Your task to perform on an android device: Open Maps and search for coffee Image 0: 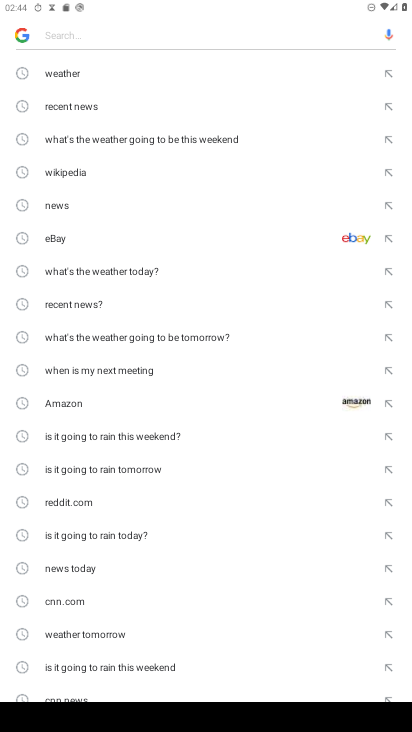
Step 0: press home button
Your task to perform on an android device: Open Maps and search for coffee Image 1: 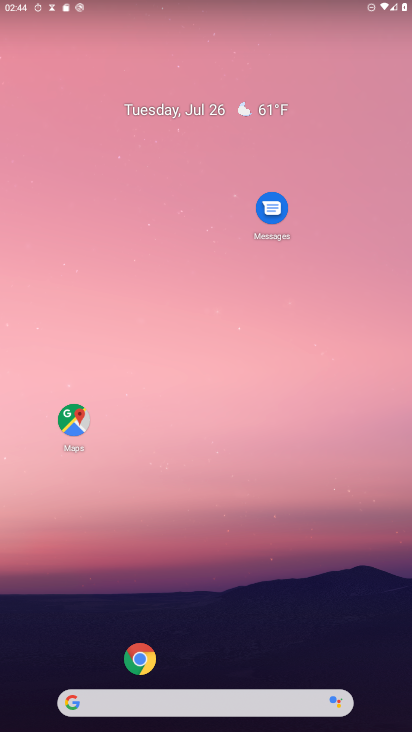
Step 1: click (75, 418)
Your task to perform on an android device: Open Maps and search for coffee Image 2: 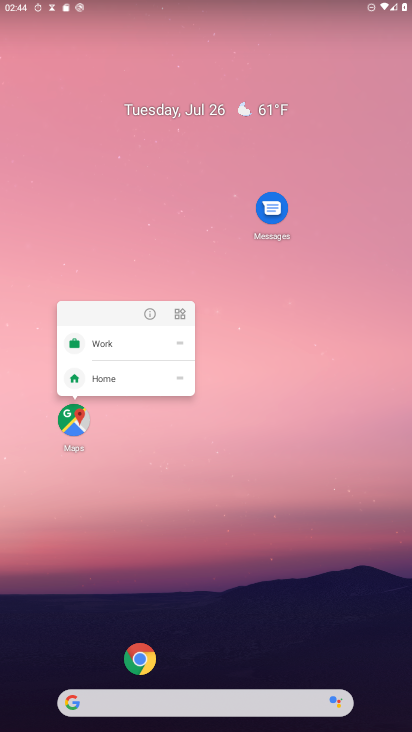
Step 2: click (74, 421)
Your task to perform on an android device: Open Maps and search for coffee Image 3: 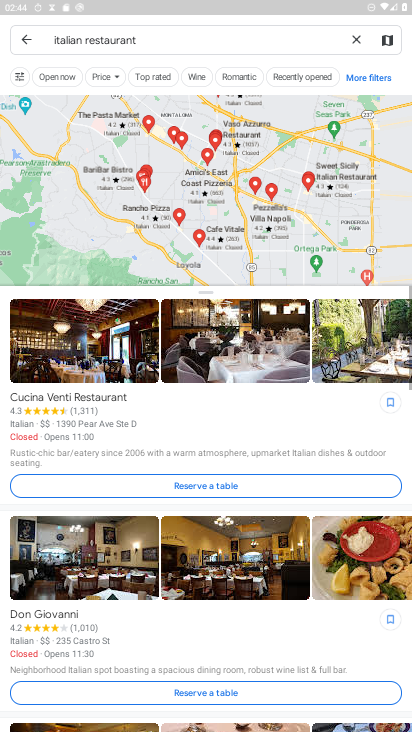
Step 3: click (23, 40)
Your task to perform on an android device: Open Maps and search for coffee Image 4: 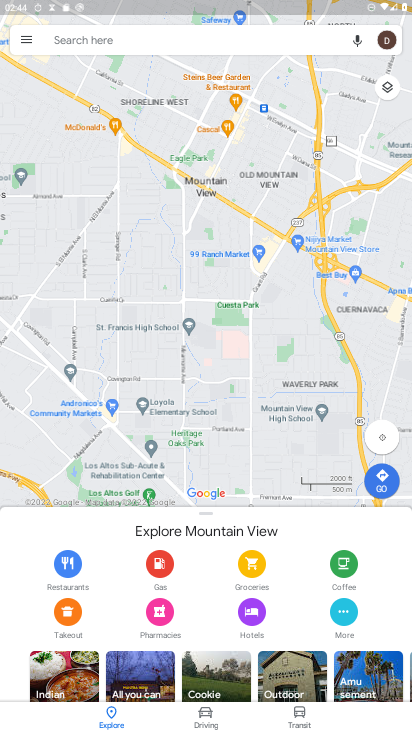
Step 4: click (62, 37)
Your task to perform on an android device: Open Maps and search for coffee Image 5: 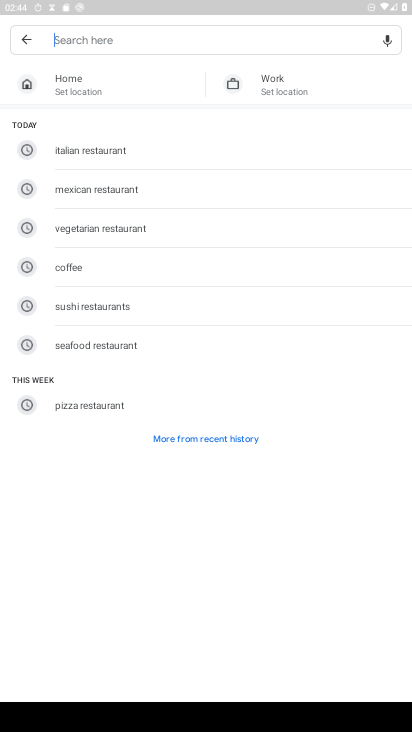
Step 5: click (65, 263)
Your task to perform on an android device: Open Maps and search for coffee Image 6: 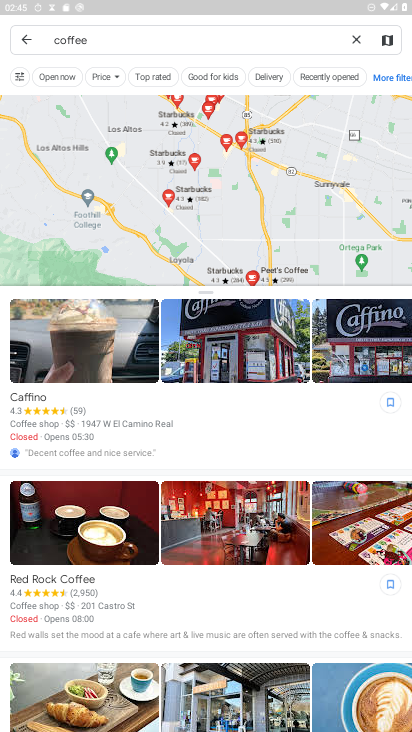
Step 6: task complete